Your task to perform on an android device: What's the weather going to be tomorrow? Image 0: 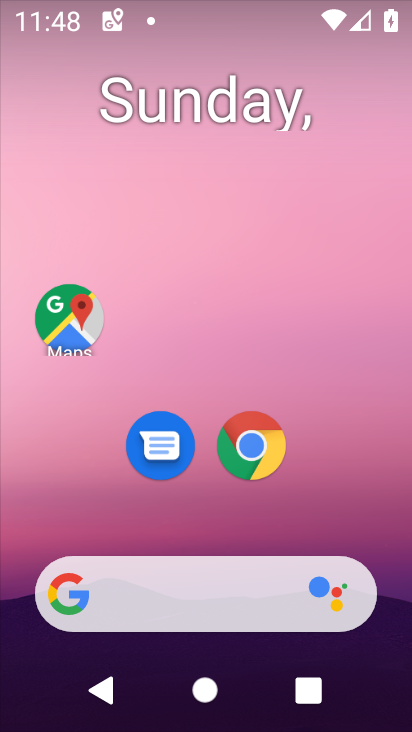
Step 0: click (70, 594)
Your task to perform on an android device: What's the weather going to be tomorrow? Image 1: 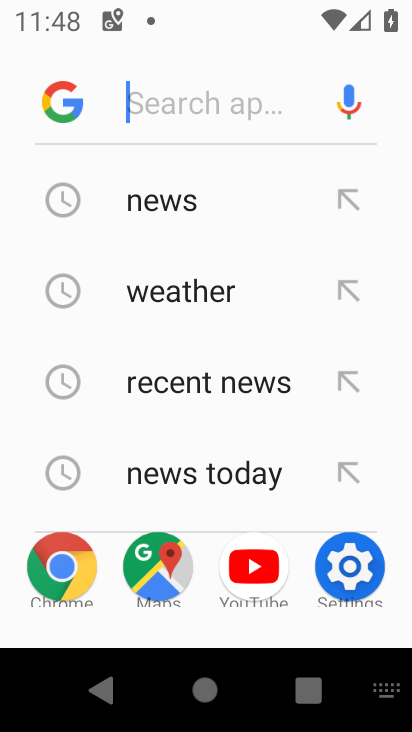
Step 1: click (193, 294)
Your task to perform on an android device: What's the weather going to be tomorrow? Image 2: 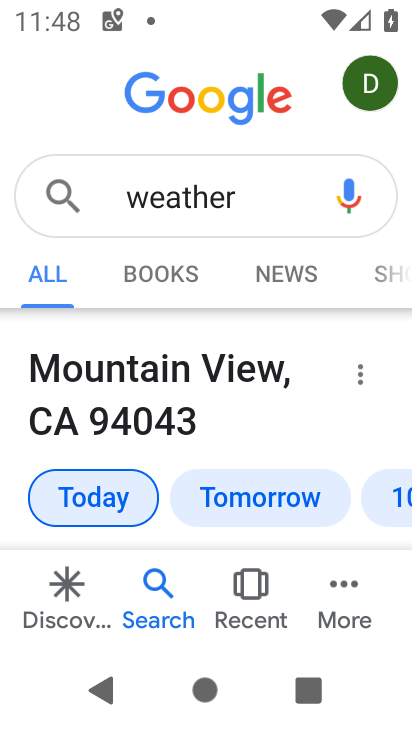
Step 2: click (272, 506)
Your task to perform on an android device: What's the weather going to be tomorrow? Image 3: 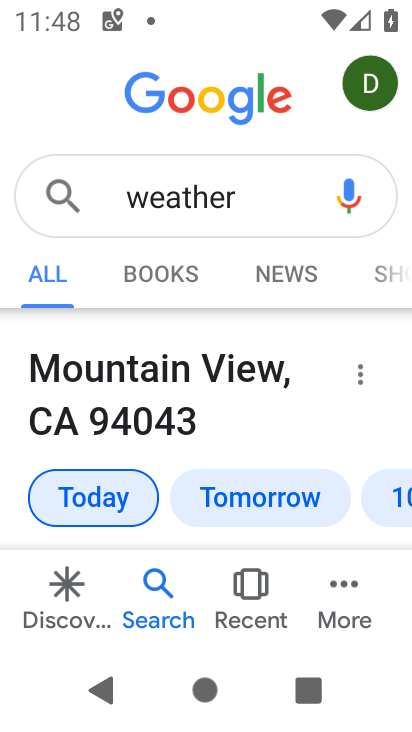
Step 3: drag from (270, 453) to (273, 310)
Your task to perform on an android device: What's the weather going to be tomorrow? Image 4: 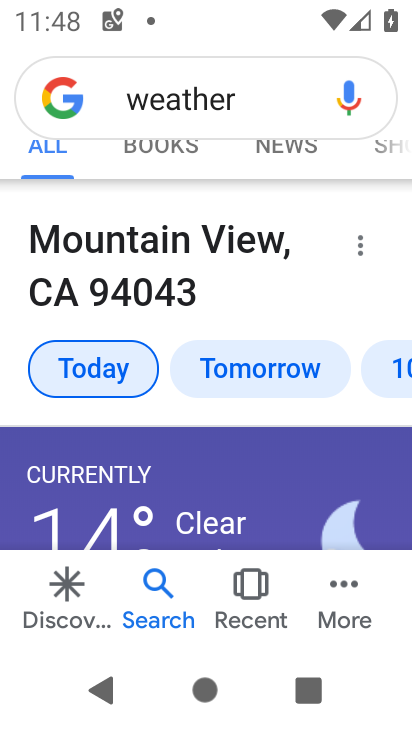
Step 4: click (243, 373)
Your task to perform on an android device: What's the weather going to be tomorrow? Image 5: 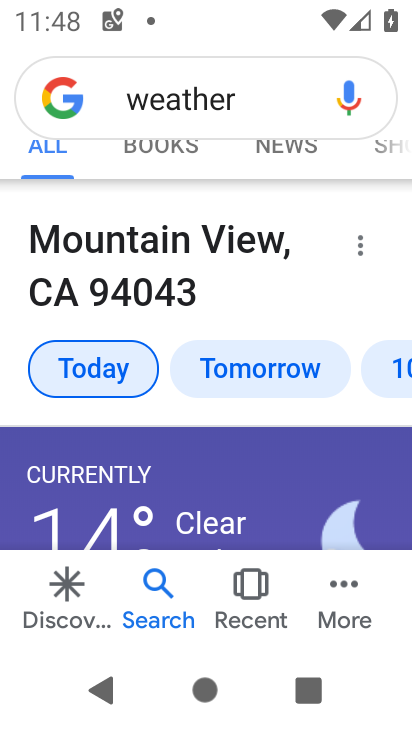
Step 5: click (249, 381)
Your task to perform on an android device: What's the weather going to be tomorrow? Image 6: 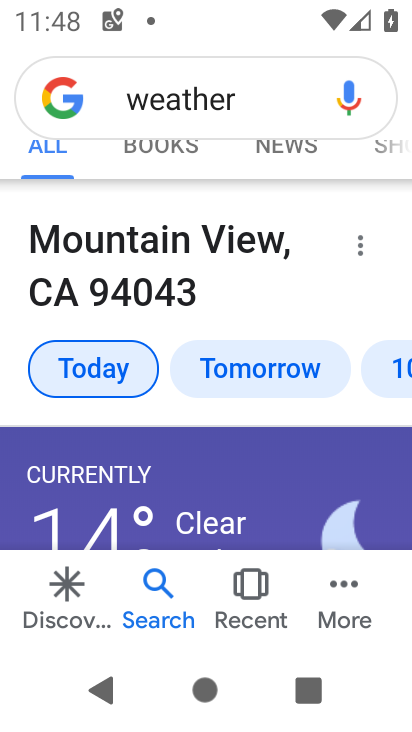
Step 6: drag from (264, 395) to (299, 233)
Your task to perform on an android device: What's the weather going to be tomorrow? Image 7: 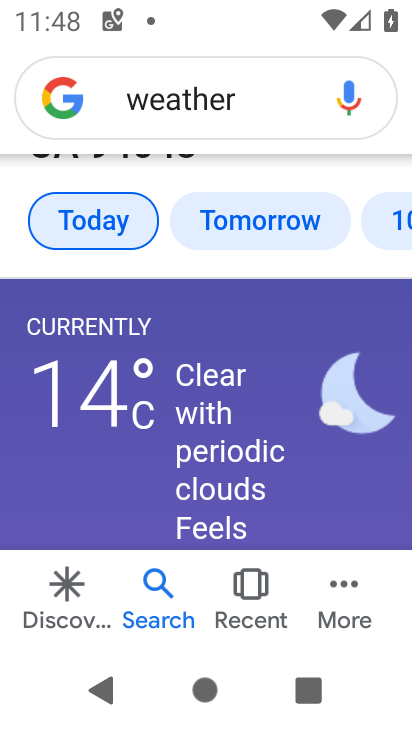
Step 7: click (280, 231)
Your task to perform on an android device: What's the weather going to be tomorrow? Image 8: 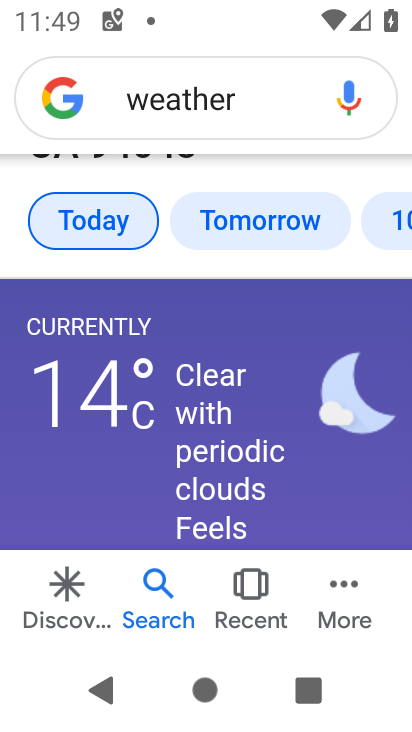
Step 8: task complete